Your task to perform on an android device: Open Chrome and go to the settings page Image 0: 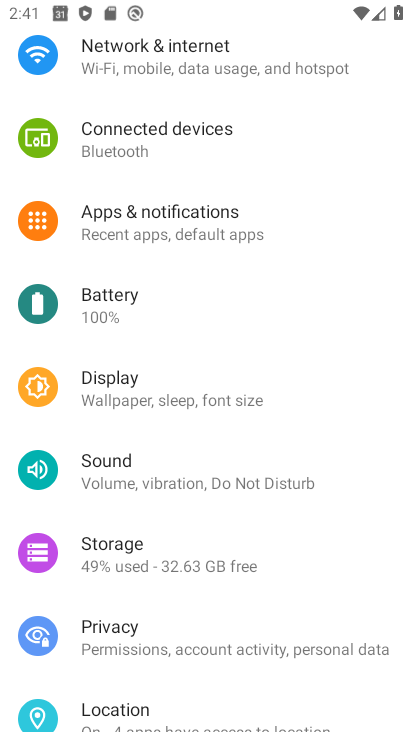
Step 0: drag from (232, 637) to (225, 254)
Your task to perform on an android device: Open Chrome and go to the settings page Image 1: 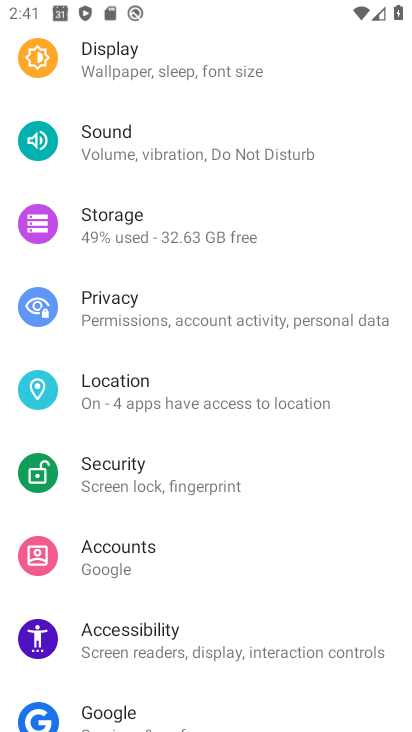
Step 1: press home button
Your task to perform on an android device: Open Chrome and go to the settings page Image 2: 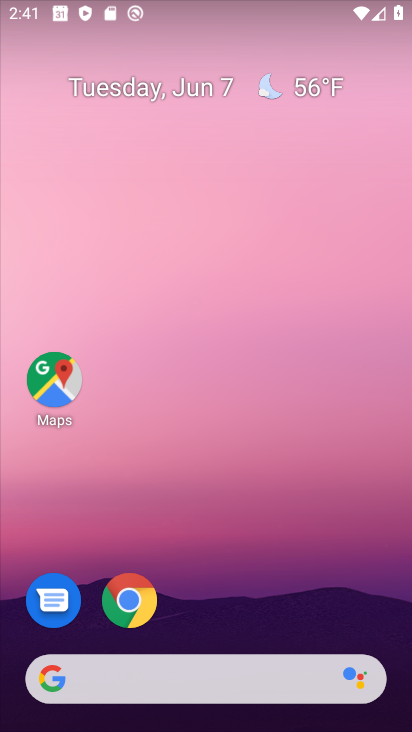
Step 2: click (138, 597)
Your task to perform on an android device: Open Chrome and go to the settings page Image 3: 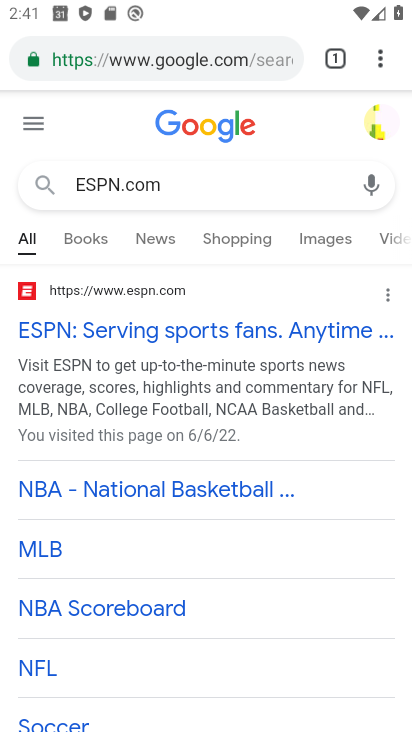
Step 3: click (381, 48)
Your task to perform on an android device: Open Chrome and go to the settings page Image 4: 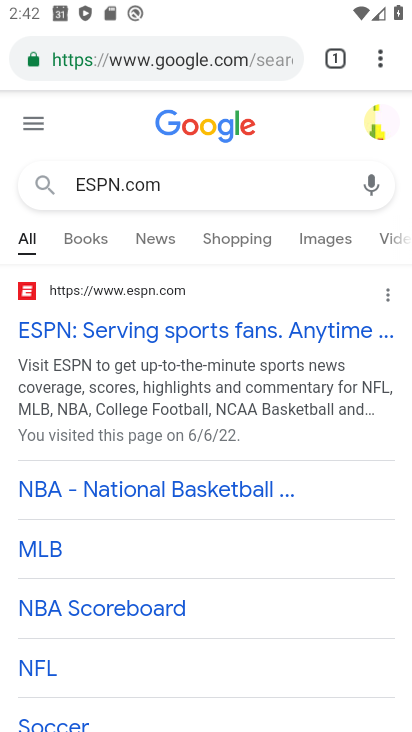
Step 4: click (379, 51)
Your task to perform on an android device: Open Chrome and go to the settings page Image 5: 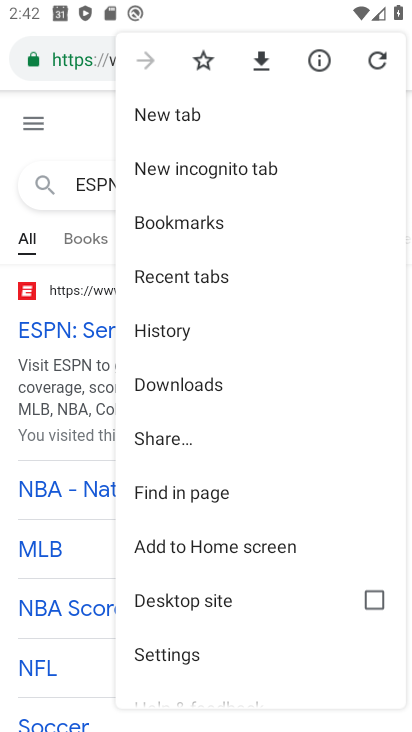
Step 5: drag from (199, 644) to (199, 269)
Your task to perform on an android device: Open Chrome and go to the settings page Image 6: 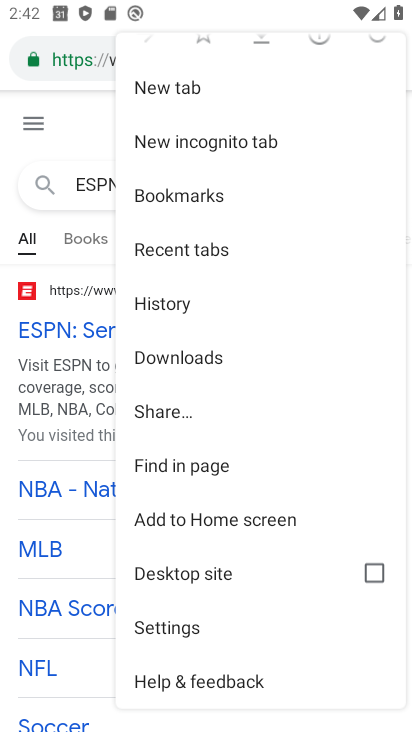
Step 6: click (177, 623)
Your task to perform on an android device: Open Chrome and go to the settings page Image 7: 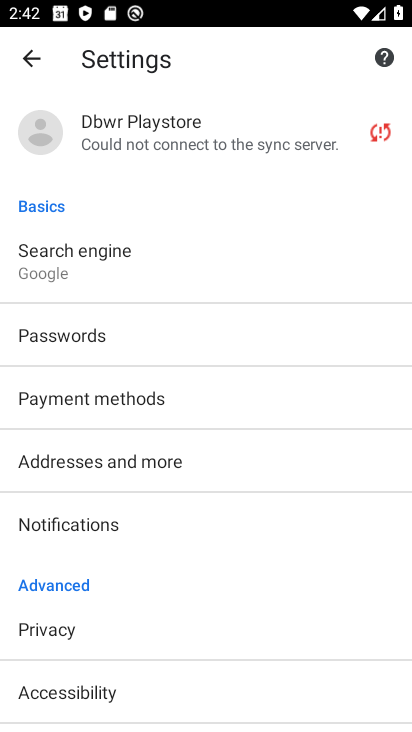
Step 7: task complete